Your task to perform on an android device: delete a single message in the gmail app Image 0: 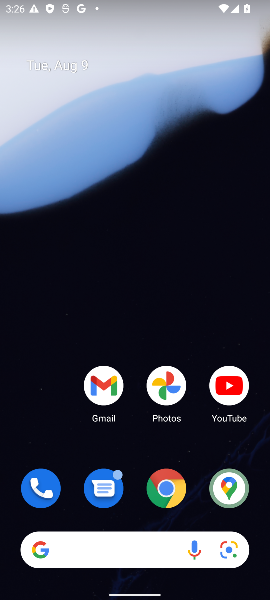
Step 0: click (103, 385)
Your task to perform on an android device: delete a single message in the gmail app Image 1: 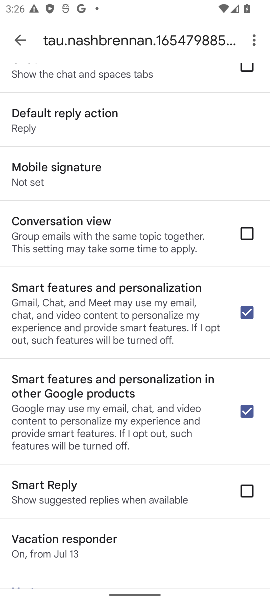
Step 1: click (28, 44)
Your task to perform on an android device: delete a single message in the gmail app Image 2: 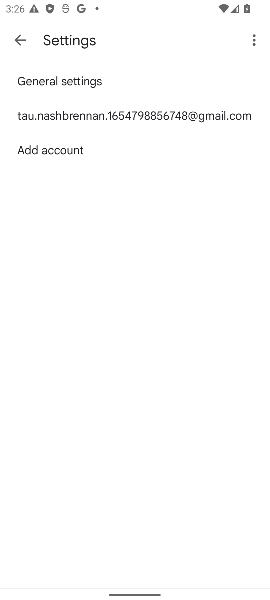
Step 2: click (28, 44)
Your task to perform on an android device: delete a single message in the gmail app Image 3: 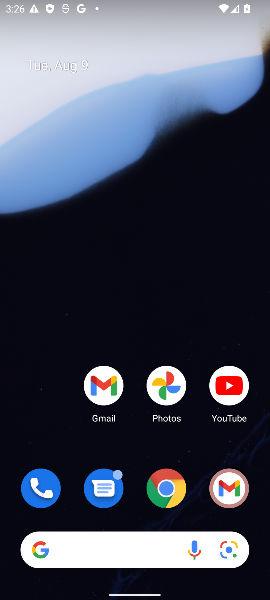
Step 3: click (107, 399)
Your task to perform on an android device: delete a single message in the gmail app Image 4: 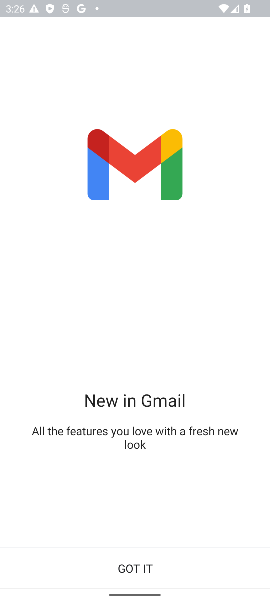
Step 4: click (130, 565)
Your task to perform on an android device: delete a single message in the gmail app Image 5: 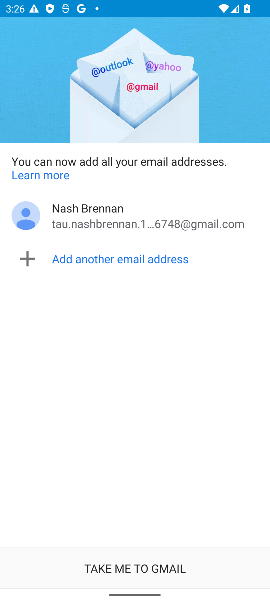
Step 5: click (140, 560)
Your task to perform on an android device: delete a single message in the gmail app Image 6: 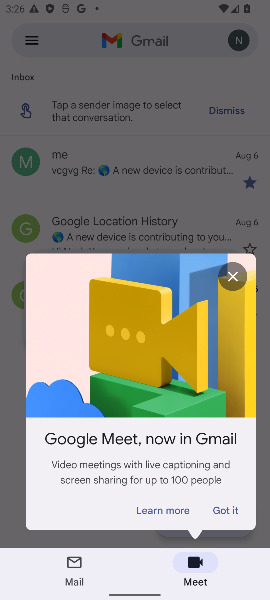
Step 6: click (228, 285)
Your task to perform on an android device: delete a single message in the gmail app Image 7: 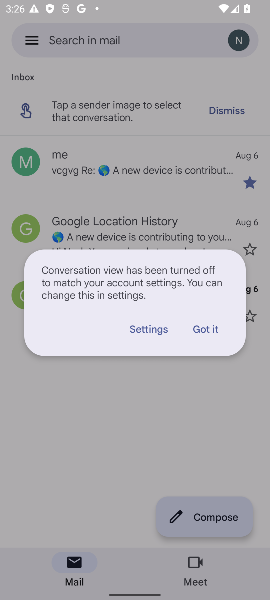
Step 7: click (206, 331)
Your task to perform on an android device: delete a single message in the gmail app Image 8: 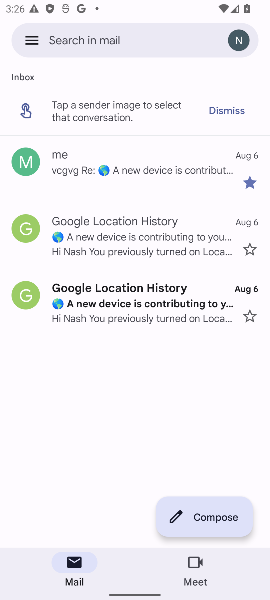
Step 8: click (139, 250)
Your task to perform on an android device: delete a single message in the gmail app Image 9: 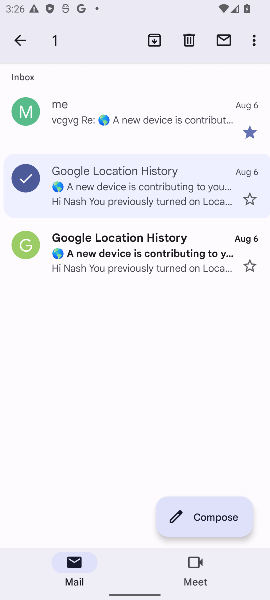
Step 9: click (185, 44)
Your task to perform on an android device: delete a single message in the gmail app Image 10: 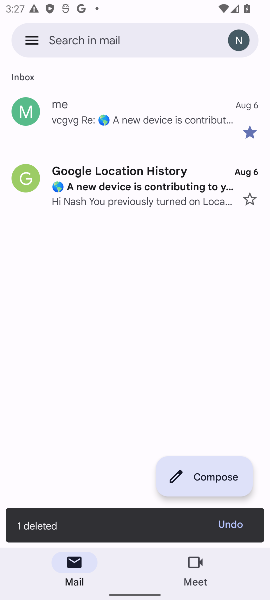
Step 10: task complete